Your task to perform on an android device: turn off sleep mode Image 0: 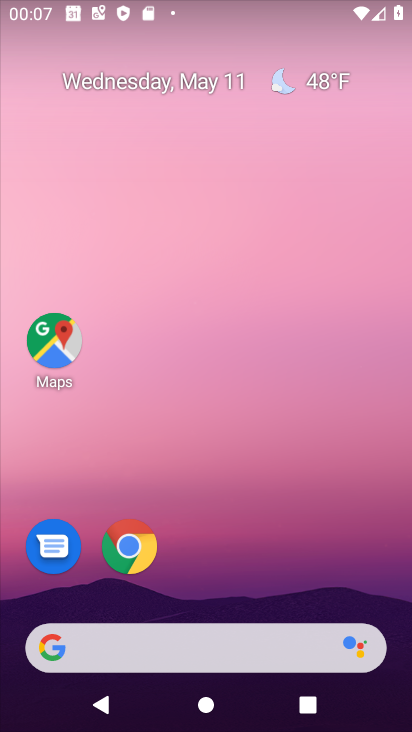
Step 0: drag from (258, 570) to (252, 155)
Your task to perform on an android device: turn off sleep mode Image 1: 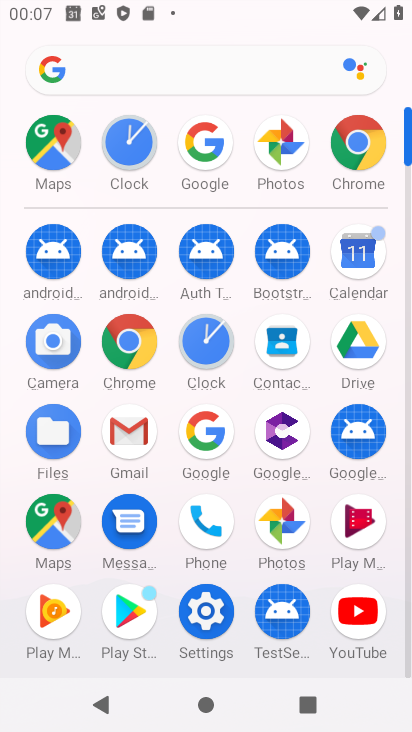
Step 1: click (200, 587)
Your task to perform on an android device: turn off sleep mode Image 2: 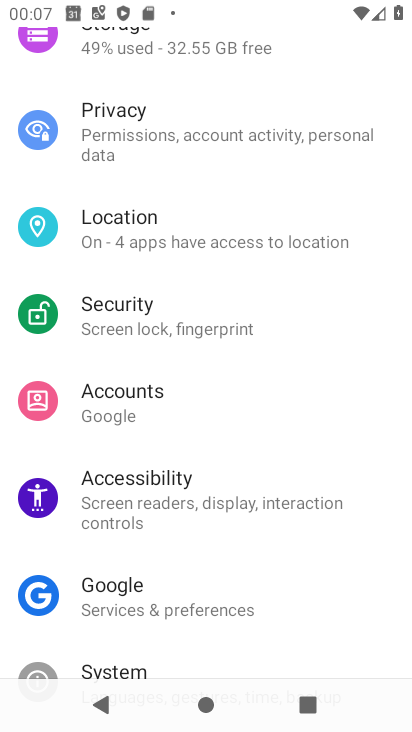
Step 2: drag from (176, 185) to (206, 484)
Your task to perform on an android device: turn off sleep mode Image 3: 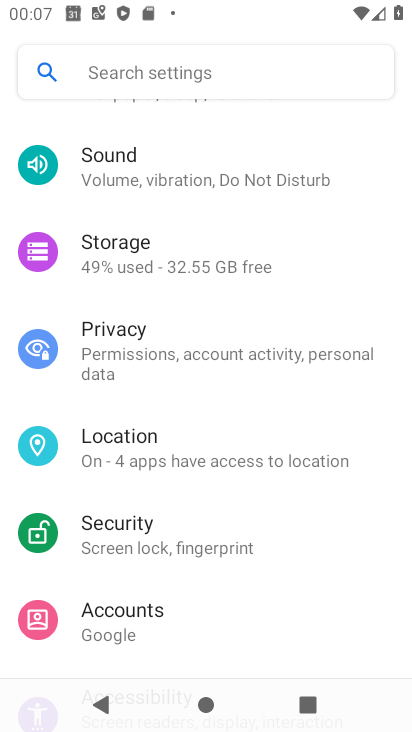
Step 3: drag from (191, 196) to (223, 490)
Your task to perform on an android device: turn off sleep mode Image 4: 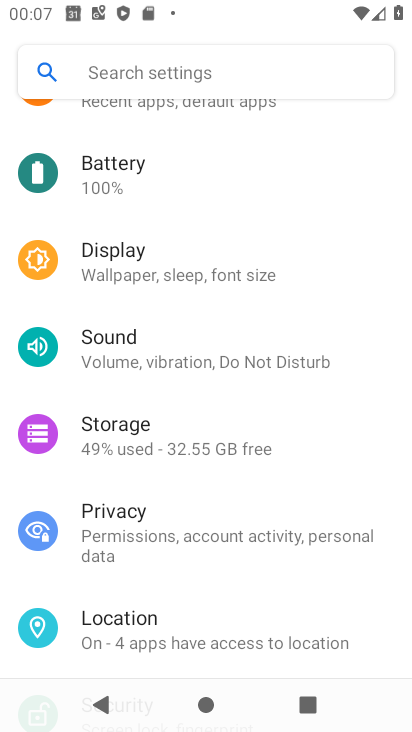
Step 4: click (158, 251)
Your task to perform on an android device: turn off sleep mode Image 5: 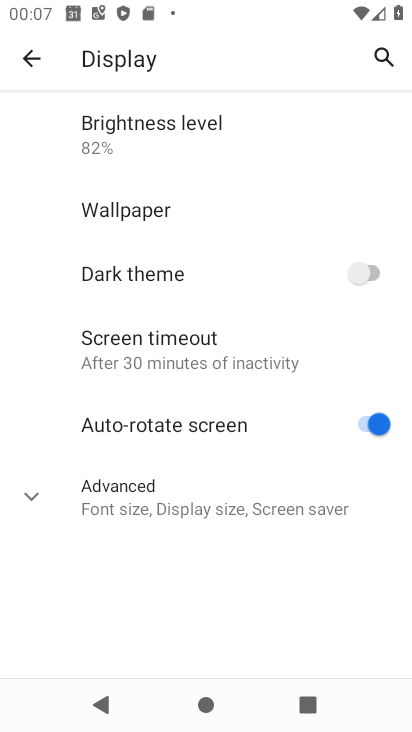
Step 5: click (197, 346)
Your task to perform on an android device: turn off sleep mode Image 6: 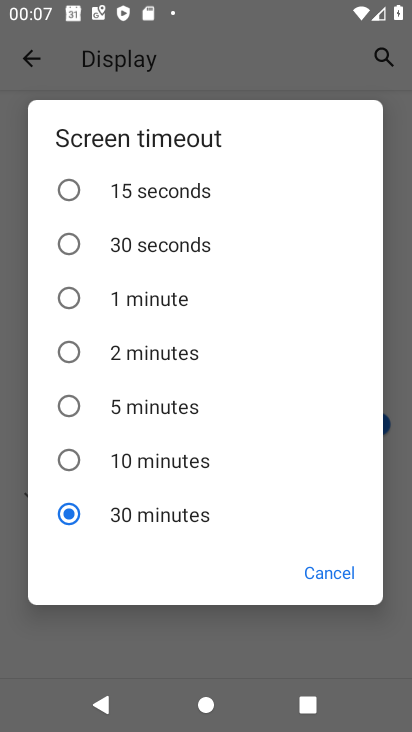
Step 6: click (181, 301)
Your task to perform on an android device: turn off sleep mode Image 7: 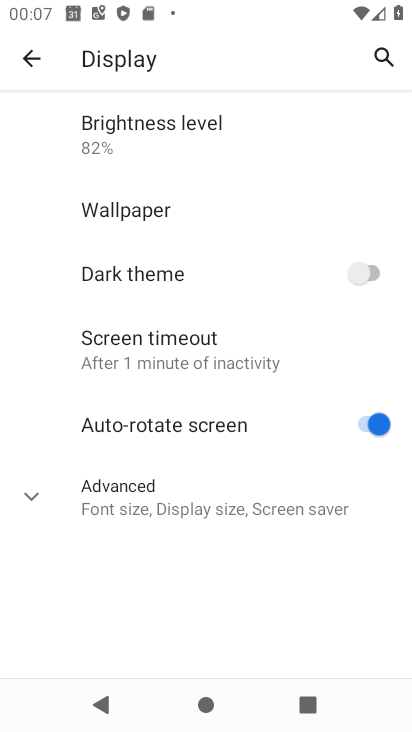
Step 7: task complete